Your task to perform on an android device: Search for the best custom wallets on Etsy. Image 0: 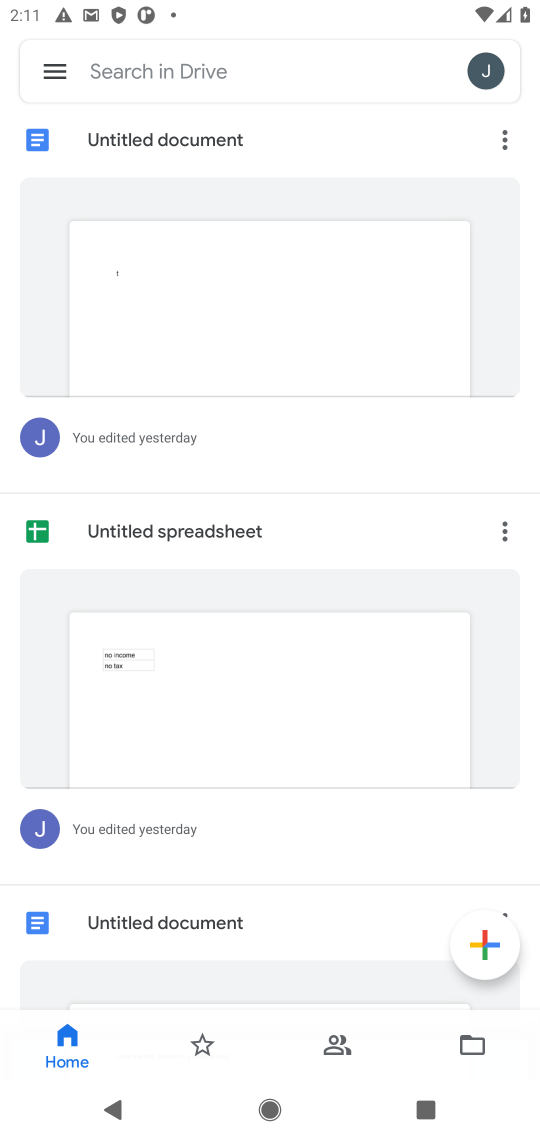
Step 0: press home button
Your task to perform on an android device: Search for the best custom wallets on Etsy. Image 1: 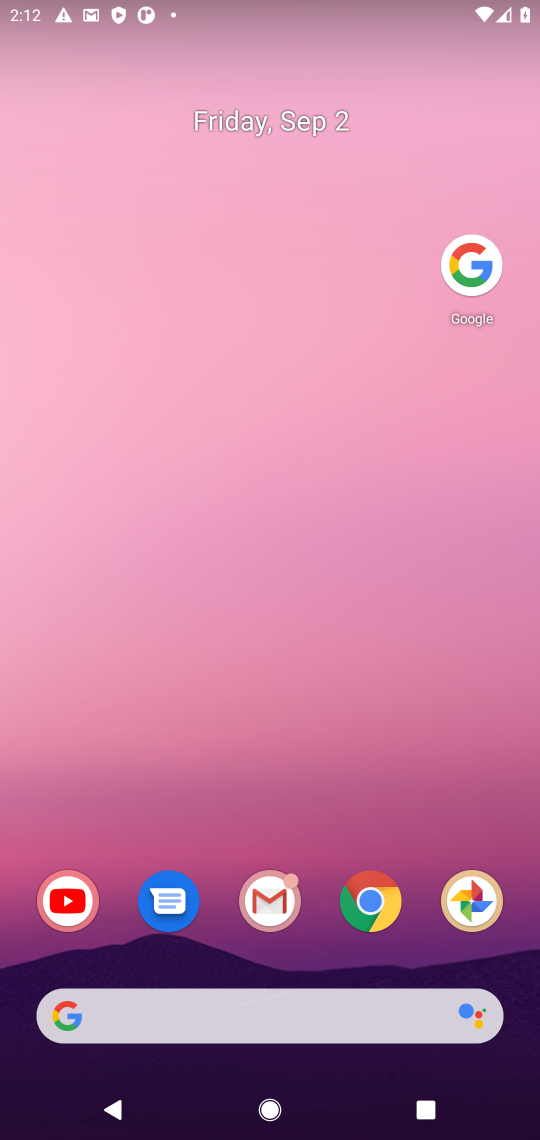
Step 1: click (472, 252)
Your task to perform on an android device: Search for the best custom wallets on Etsy. Image 2: 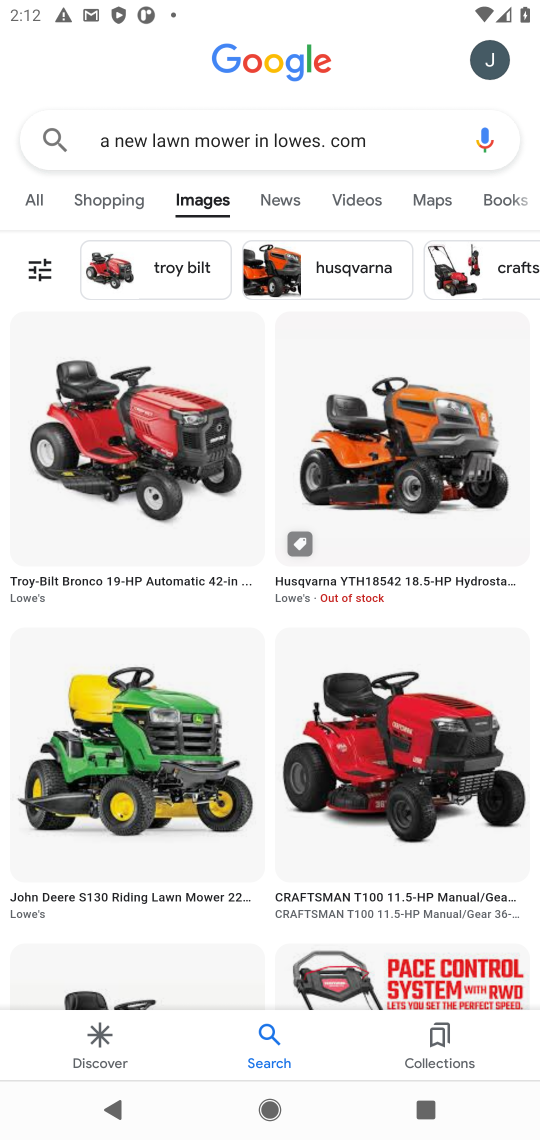
Step 2: click (400, 136)
Your task to perform on an android device: Search for the best custom wallets on Etsy. Image 3: 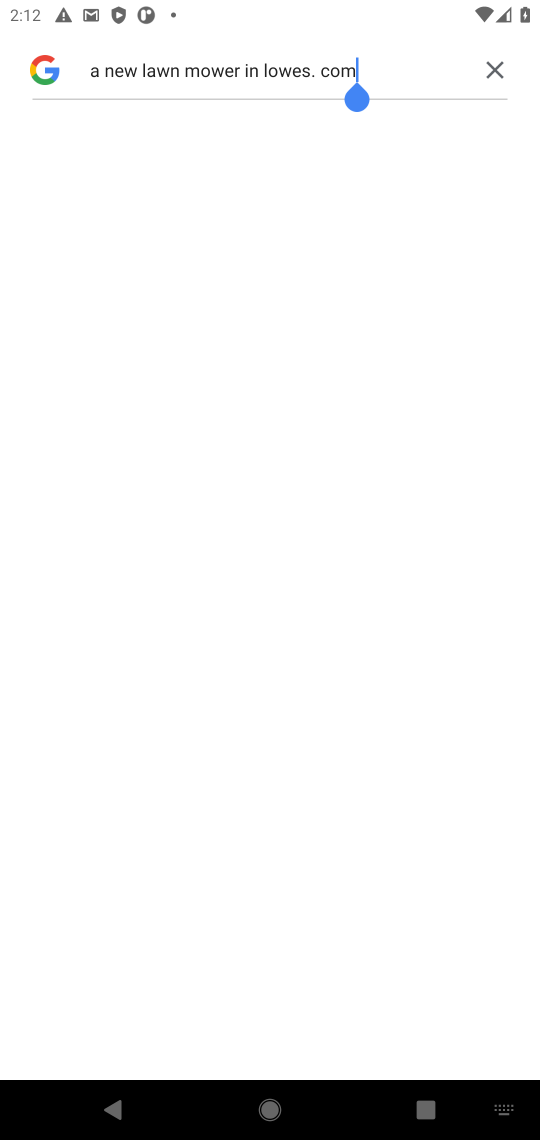
Step 3: click (508, 61)
Your task to perform on an android device: Search for the best custom wallets on Etsy. Image 4: 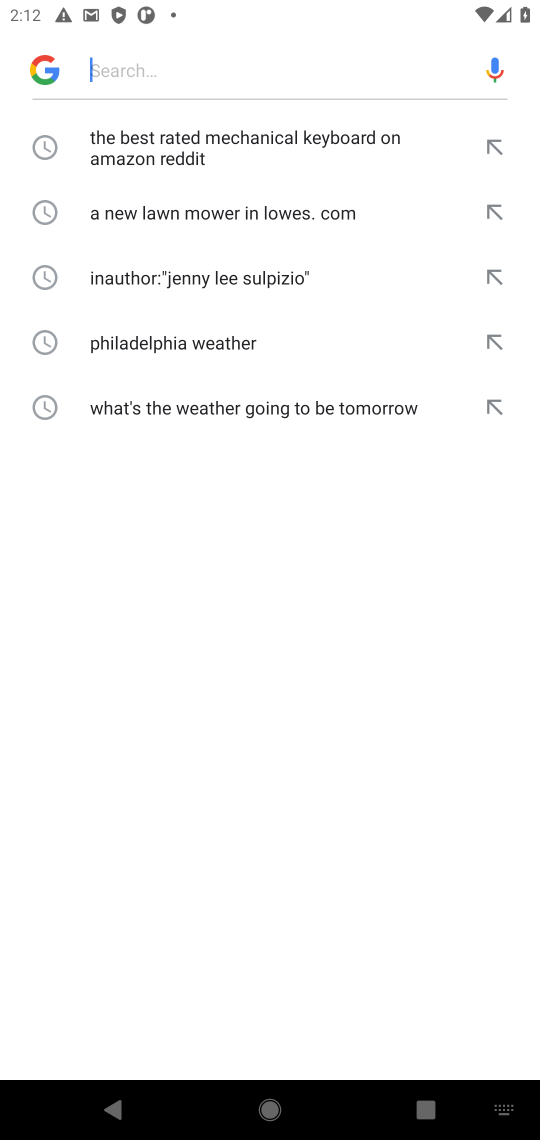
Step 4: click (260, 49)
Your task to perform on an android device: Search for the best custom wallets on Etsy. Image 5: 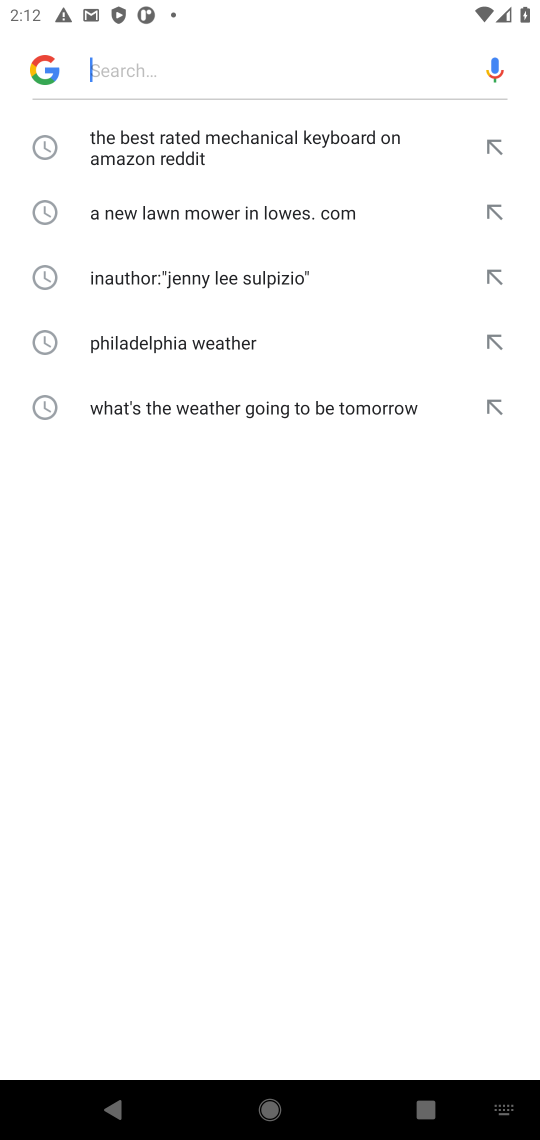
Step 5: type "the best custom wallets on Etsy "
Your task to perform on an android device: Search for the best custom wallets on Etsy. Image 6: 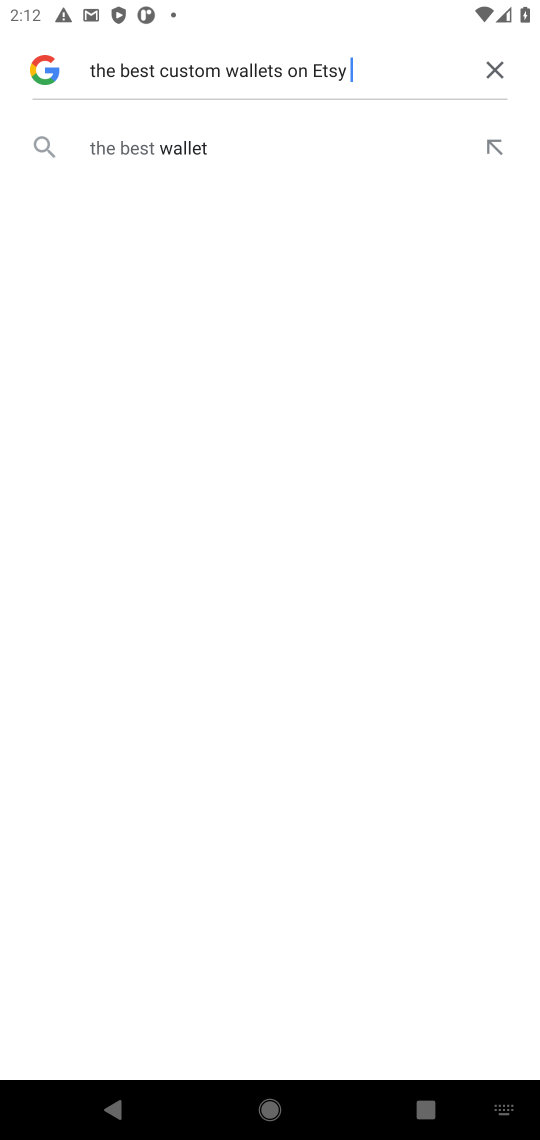
Step 6: click (210, 141)
Your task to perform on an android device: Search for the best custom wallets on Etsy. Image 7: 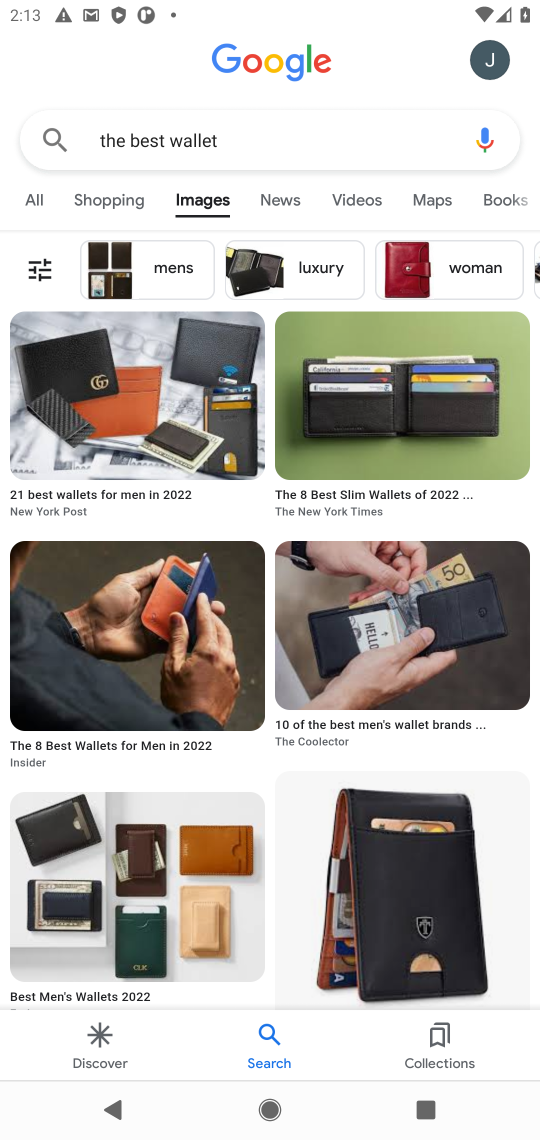
Step 7: task complete